Your task to perform on an android device: open the mobile data screen to see how much data has been used Image 0: 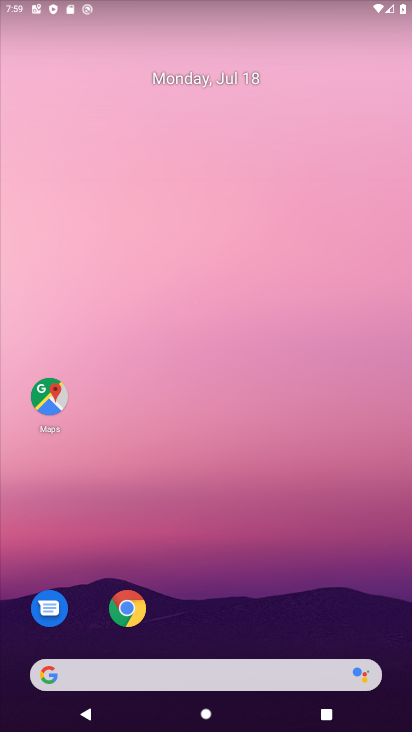
Step 0: drag from (51, 688) to (292, 43)
Your task to perform on an android device: open the mobile data screen to see how much data has been used Image 1: 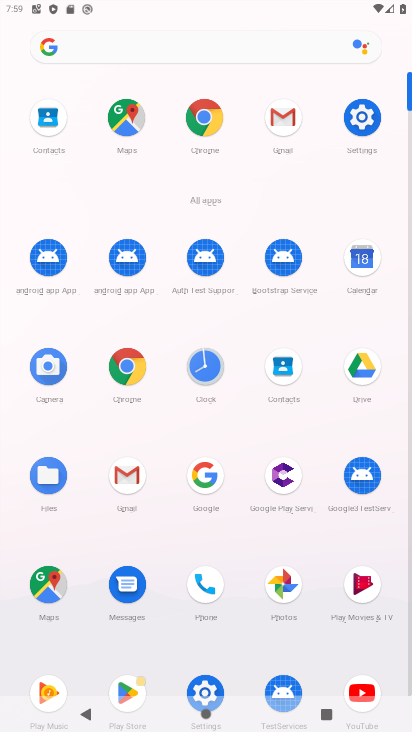
Step 1: click (213, 688)
Your task to perform on an android device: open the mobile data screen to see how much data has been used Image 2: 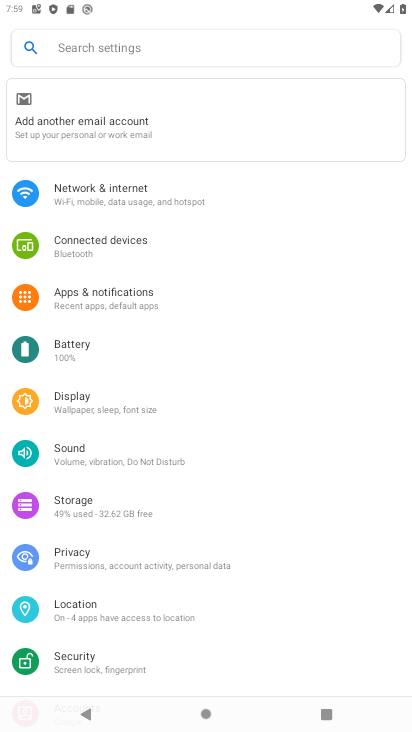
Step 2: click (120, 194)
Your task to perform on an android device: open the mobile data screen to see how much data has been used Image 3: 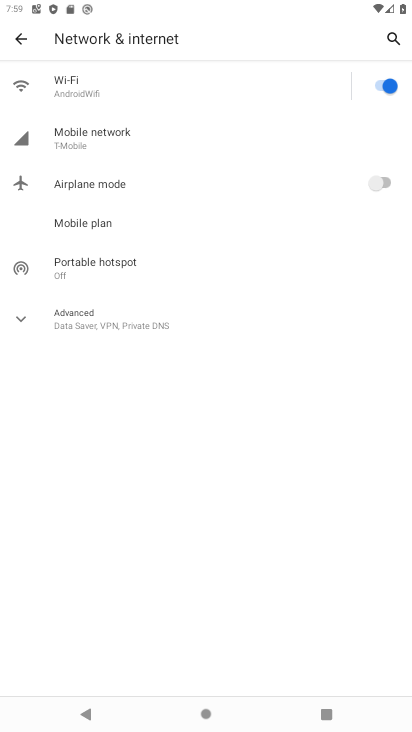
Step 3: click (87, 140)
Your task to perform on an android device: open the mobile data screen to see how much data has been used Image 4: 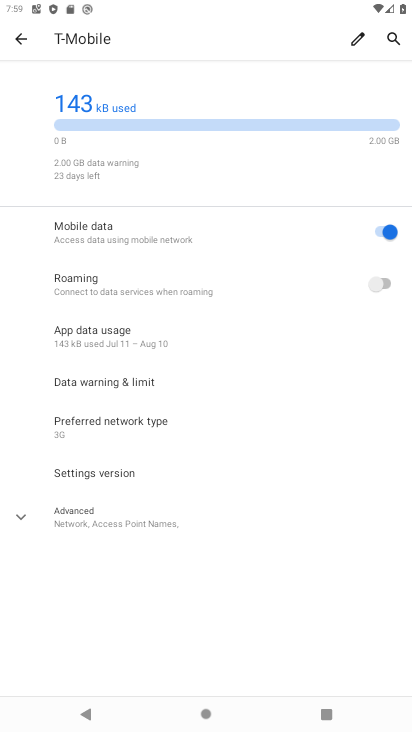
Step 4: task complete